Your task to perform on an android device: Open Yahoo.com Image 0: 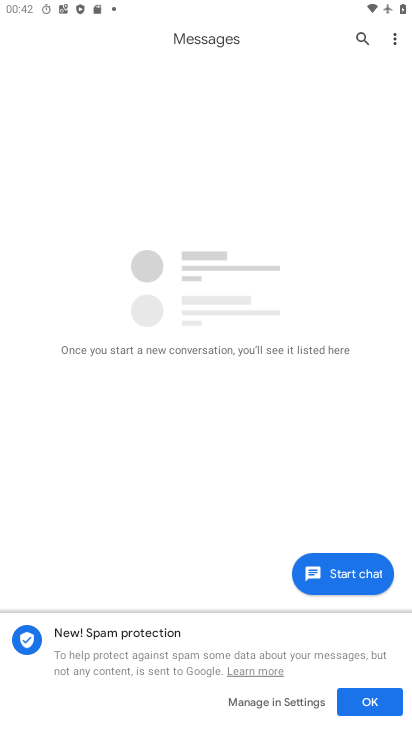
Step 0: press home button
Your task to perform on an android device: Open Yahoo.com Image 1: 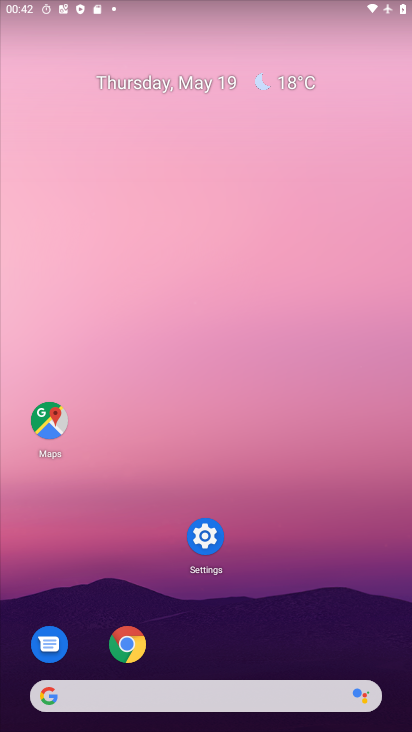
Step 1: click (121, 644)
Your task to perform on an android device: Open Yahoo.com Image 2: 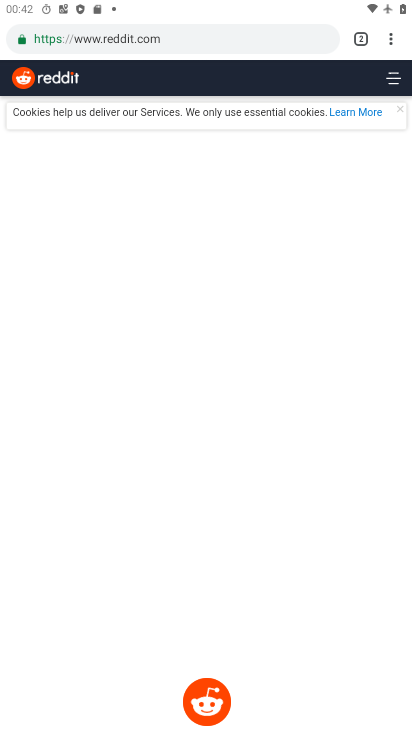
Step 2: click (206, 42)
Your task to perform on an android device: Open Yahoo.com Image 3: 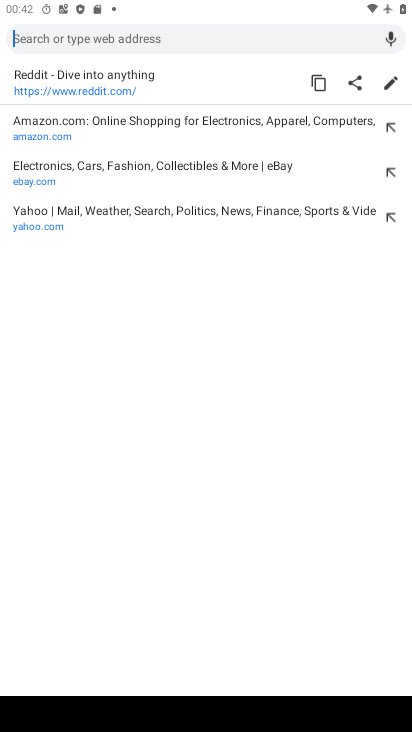
Step 3: click (41, 228)
Your task to perform on an android device: Open Yahoo.com Image 4: 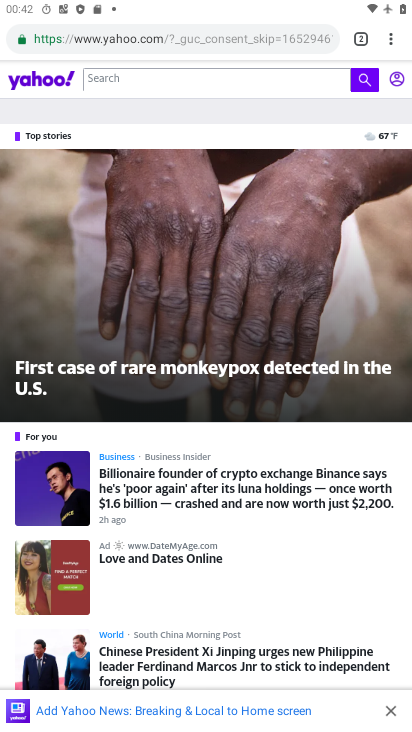
Step 4: task complete